Your task to perform on an android device: turn off javascript in the chrome app Image 0: 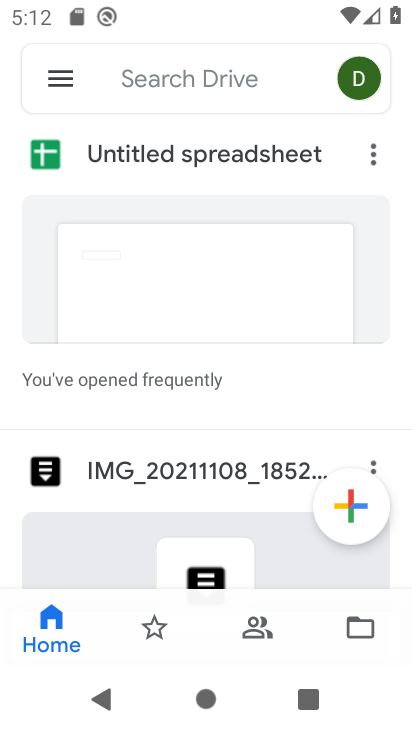
Step 0: press home button
Your task to perform on an android device: turn off javascript in the chrome app Image 1: 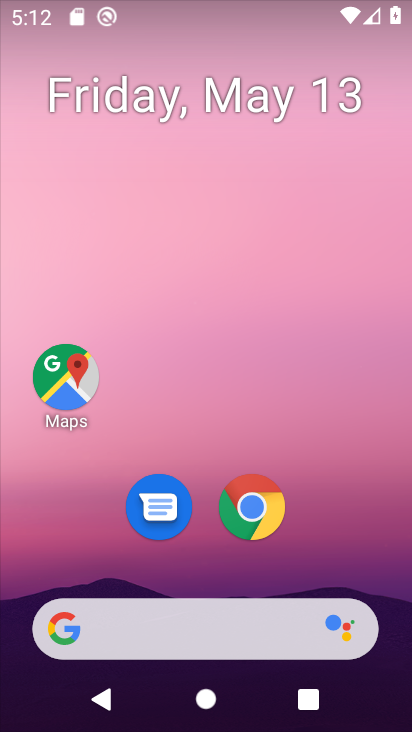
Step 1: click (256, 506)
Your task to perform on an android device: turn off javascript in the chrome app Image 2: 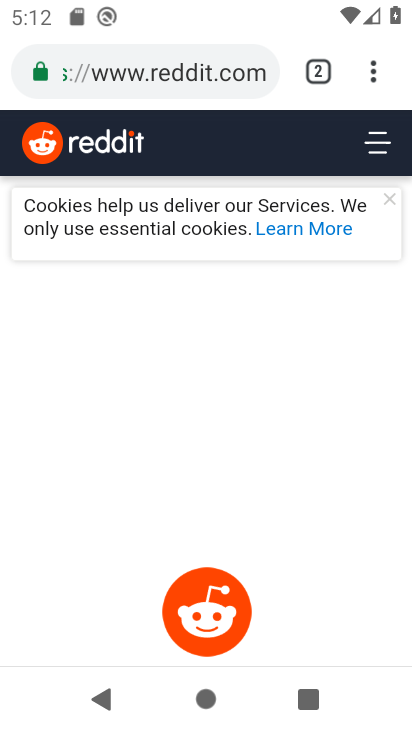
Step 2: click (372, 78)
Your task to perform on an android device: turn off javascript in the chrome app Image 3: 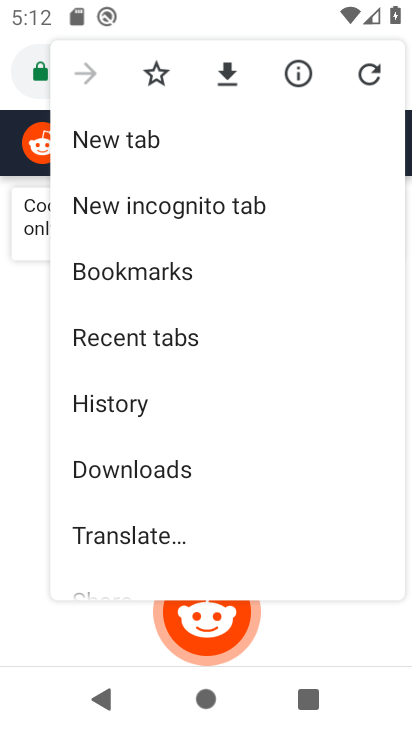
Step 3: drag from (192, 504) to (160, 152)
Your task to perform on an android device: turn off javascript in the chrome app Image 4: 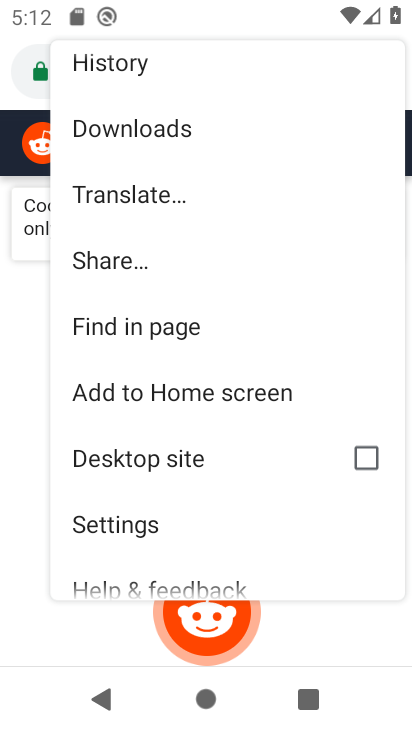
Step 4: click (173, 521)
Your task to perform on an android device: turn off javascript in the chrome app Image 5: 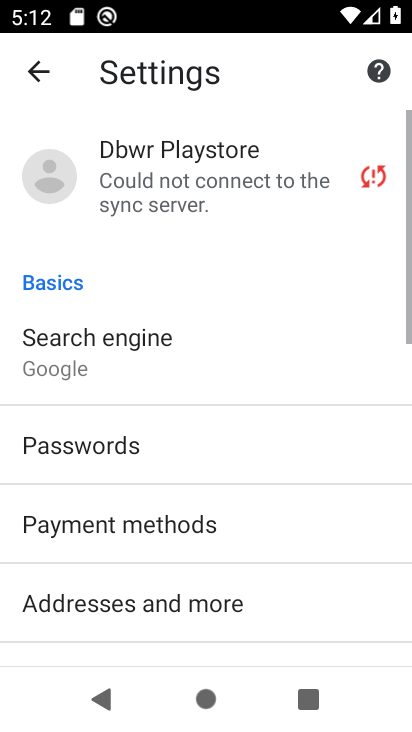
Step 5: drag from (158, 591) to (171, 170)
Your task to perform on an android device: turn off javascript in the chrome app Image 6: 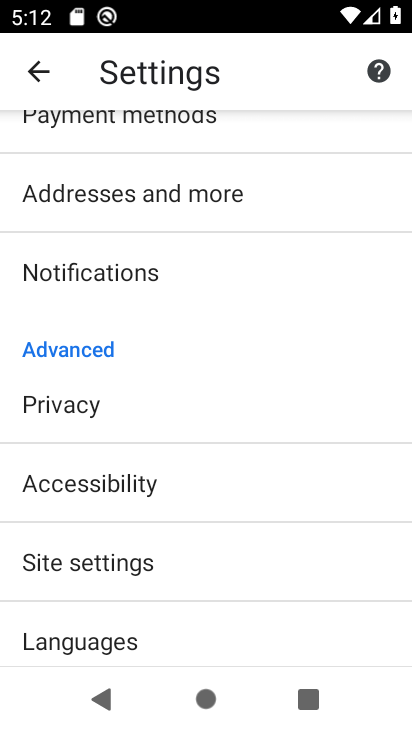
Step 6: click (136, 564)
Your task to perform on an android device: turn off javascript in the chrome app Image 7: 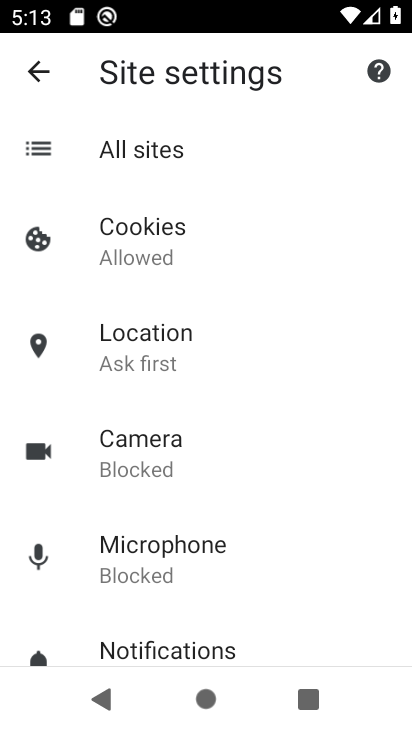
Step 7: drag from (203, 608) to (179, 306)
Your task to perform on an android device: turn off javascript in the chrome app Image 8: 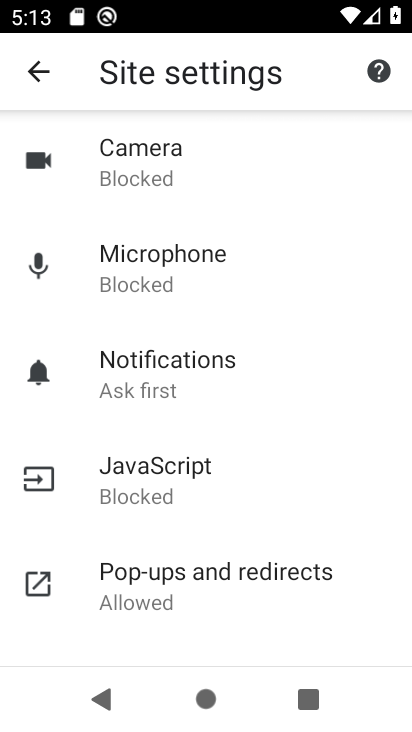
Step 8: click (181, 450)
Your task to perform on an android device: turn off javascript in the chrome app Image 9: 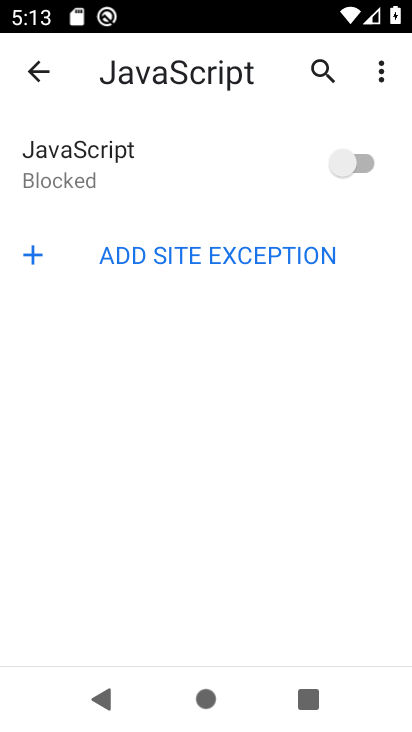
Step 9: task complete